Your task to perform on an android device: toggle improve location accuracy Image 0: 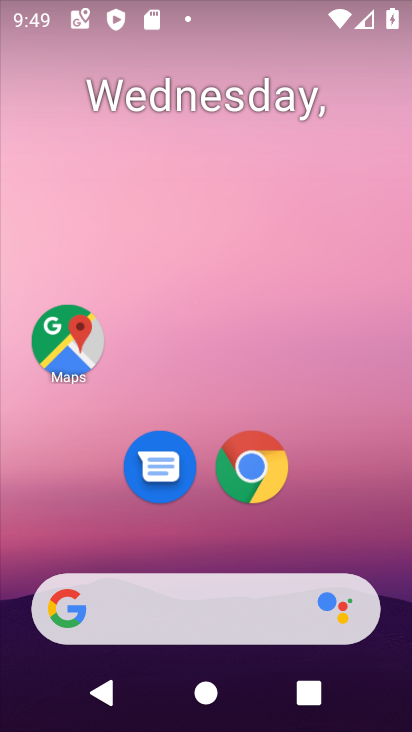
Step 0: drag from (324, 537) to (126, 187)
Your task to perform on an android device: toggle improve location accuracy Image 1: 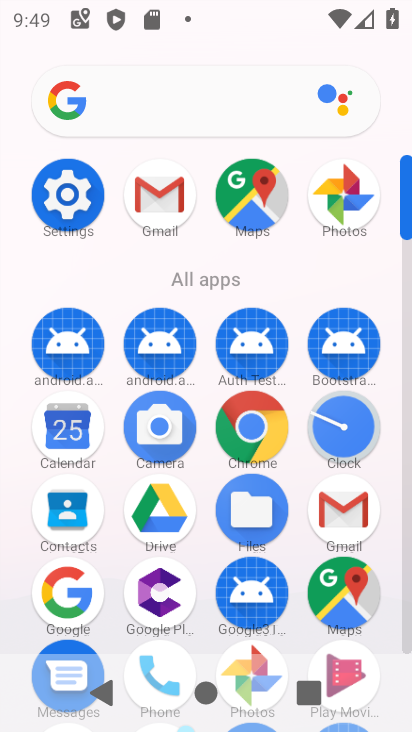
Step 1: click (60, 191)
Your task to perform on an android device: toggle improve location accuracy Image 2: 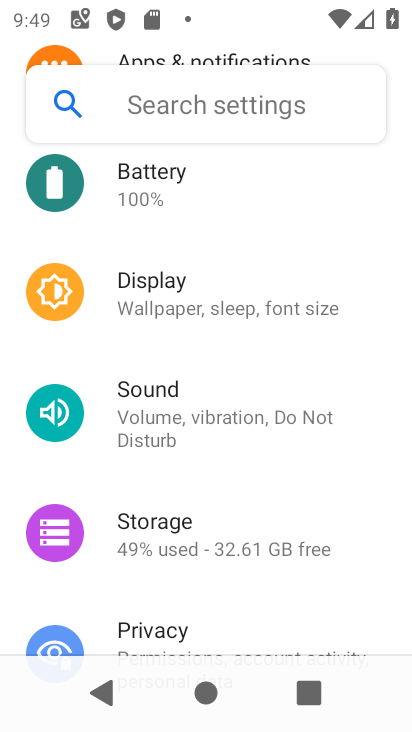
Step 2: drag from (217, 601) to (204, 387)
Your task to perform on an android device: toggle improve location accuracy Image 3: 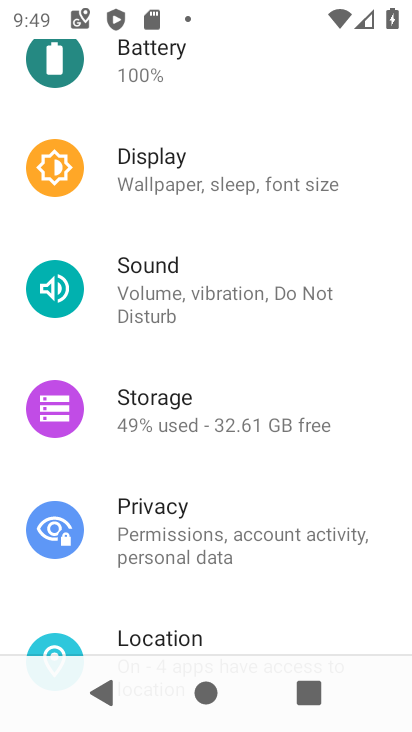
Step 3: click (113, 641)
Your task to perform on an android device: toggle improve location accuracy Image 4: 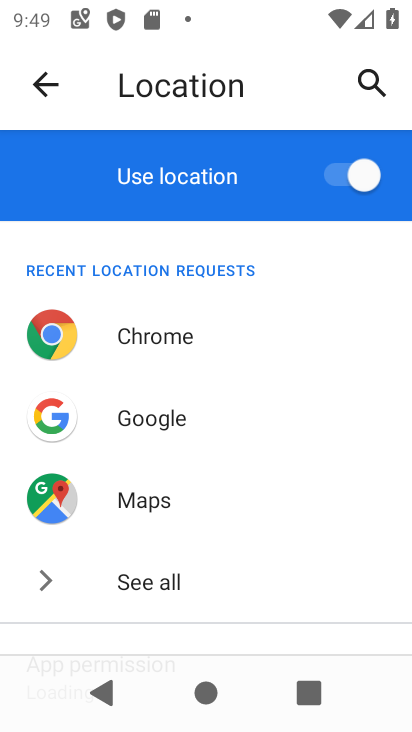
Step 4: drag from (199, 619) to (247, 153)
Your task to perform on an android device: toggle improve location accuracy Image 5: 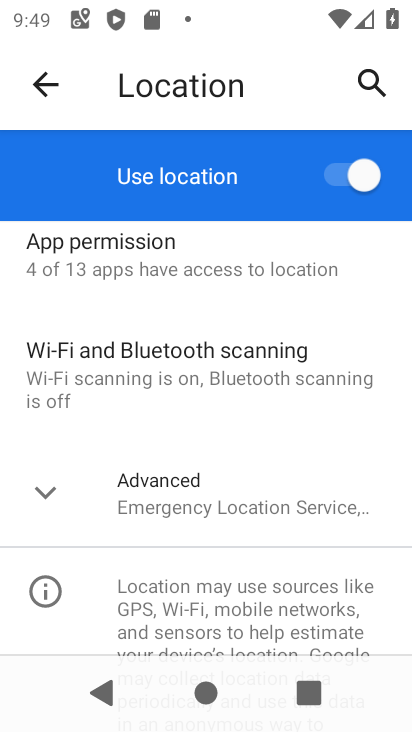
Step 5: click (164, 490)
Your task to perform on an android device: toggle improve location accuracy Image 6: 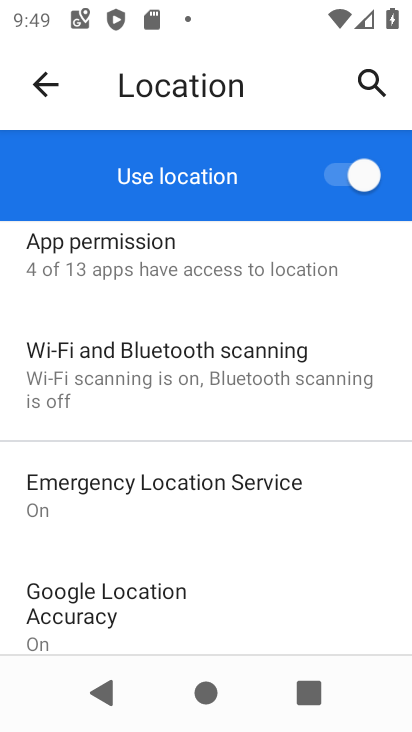
Step 6: click (135, 612)
Your task to perform on an android device: toggle improve location accuracy Image 7: 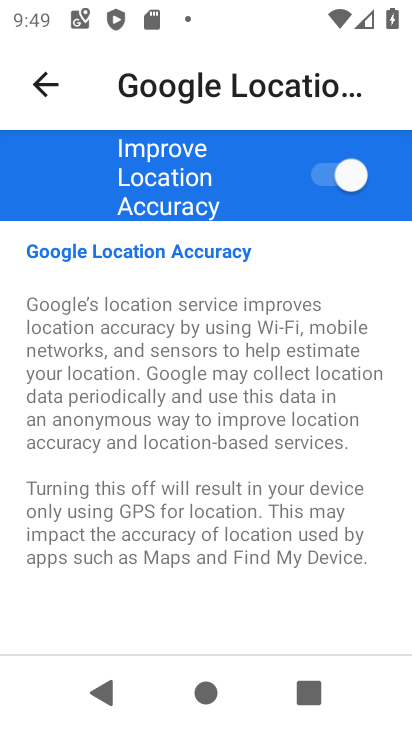
Step 7: click (342, 175)
Your task to perform on an android device: toggle improve location accuracy Image 8: 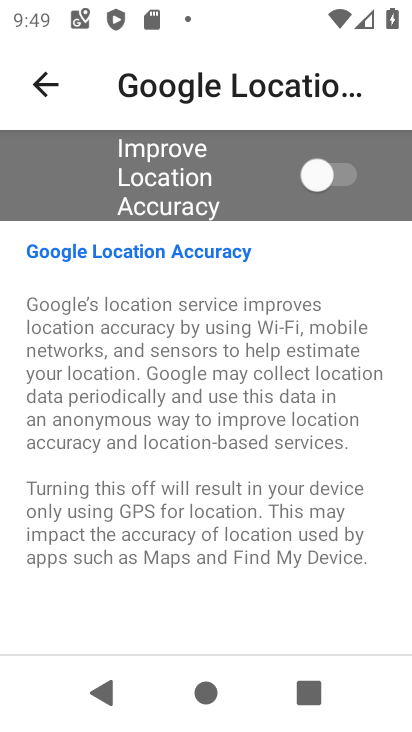
Step 8: task complete